Your task to perform on an android device: Go to calendar. Show me events next week Image 0: 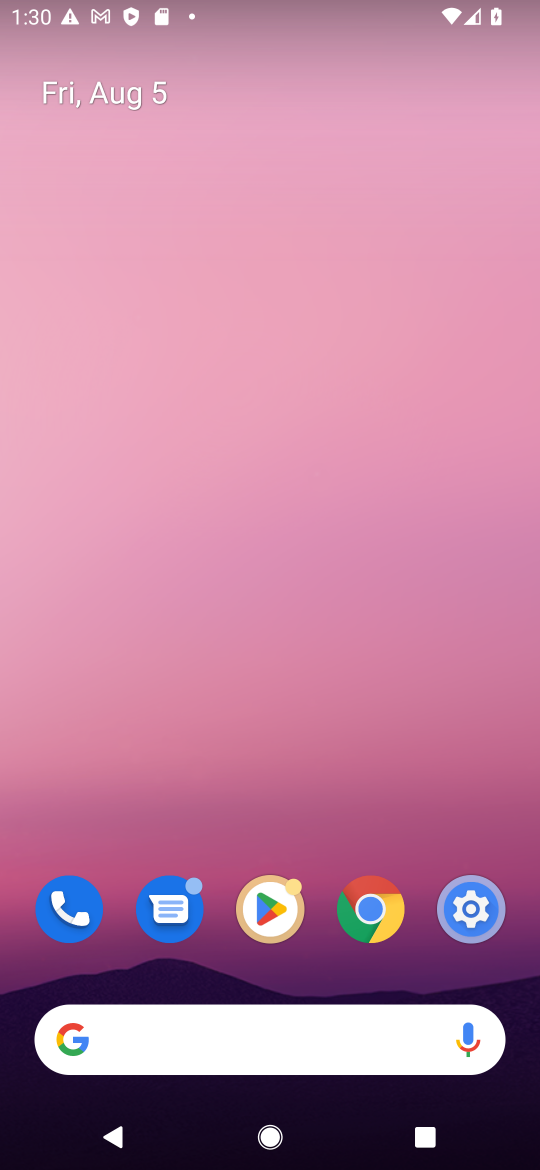
Step 0: drag from (303, 787) to (230, 66)
Your task to perform on an android device: Go to calendar. Show me events next week Image 1: 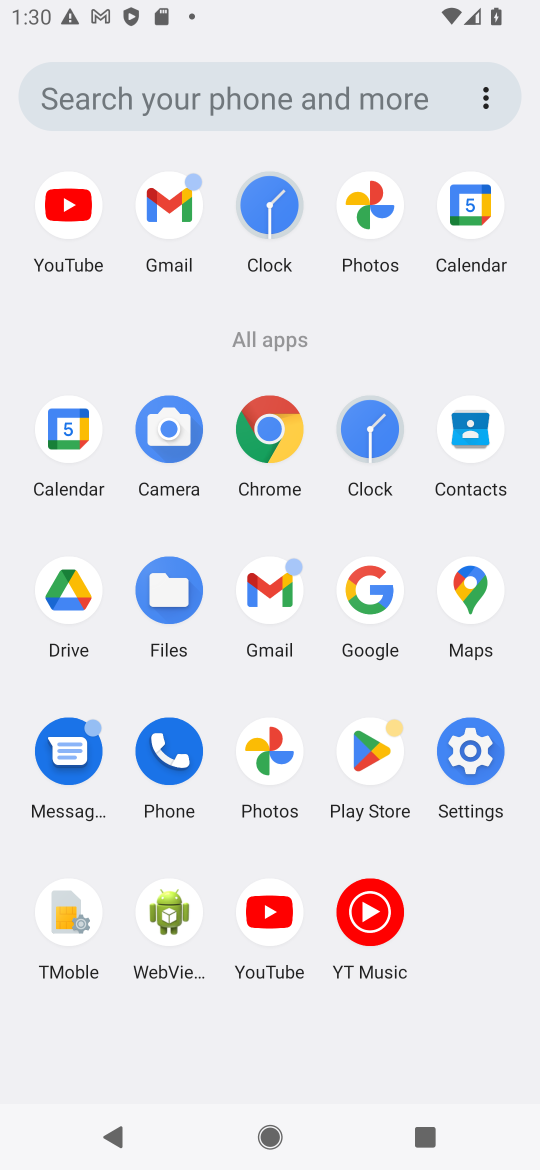
Step 1: click (478, 213)
Your task to perform on an android device: Go to calendar. Show me events next week Image 2: 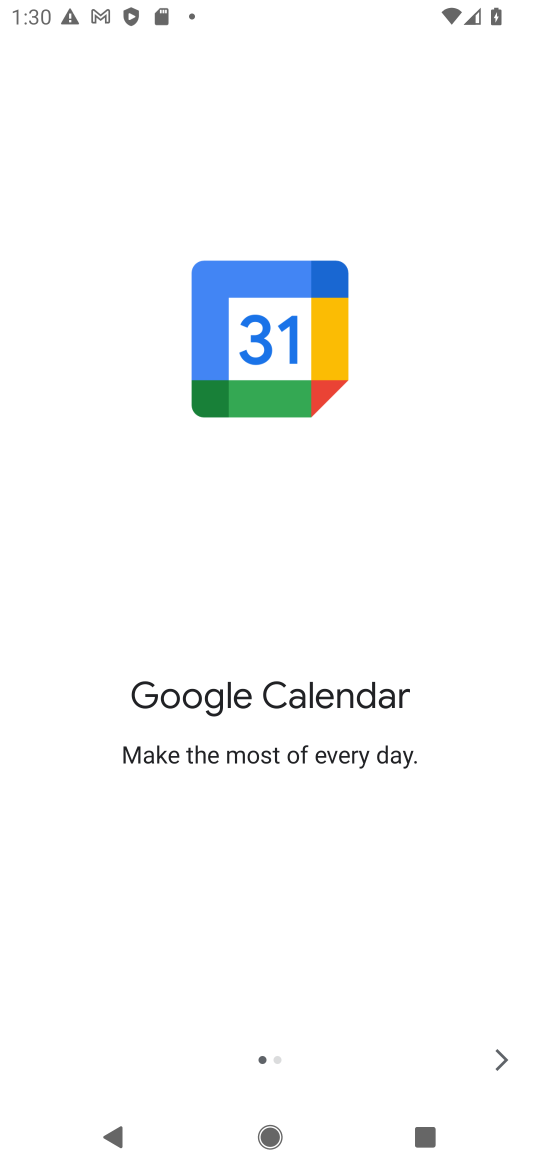
Step 2: click (501, 1061)
Your task to perform on an android device: Go to calendar. Show me events next week Image 3: 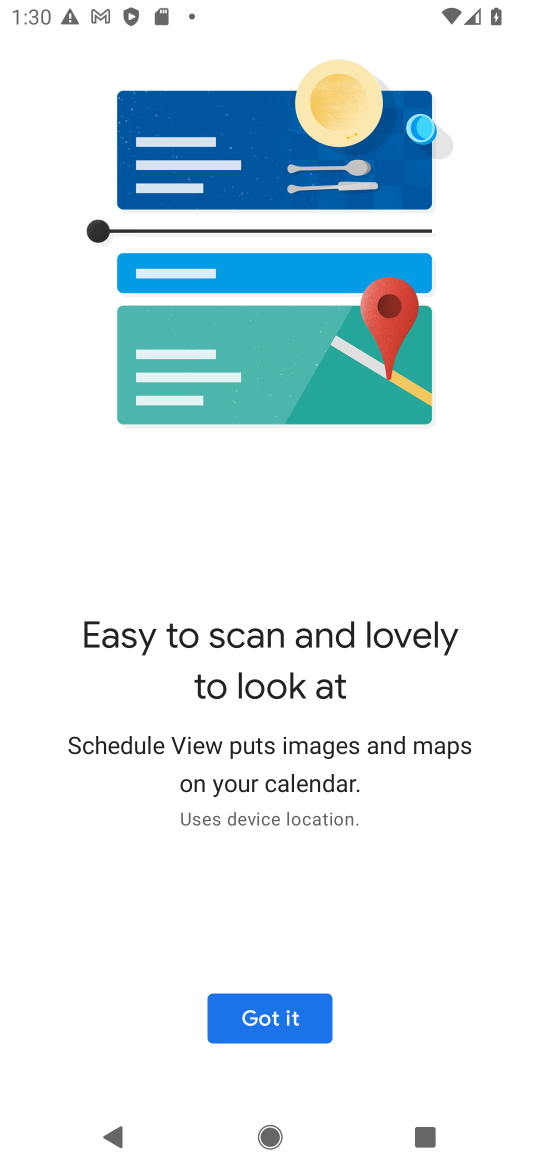
Step 3: click (501, 1061)
Your task to perform on an android device: Go to calendar. Show me events next week Image 4: 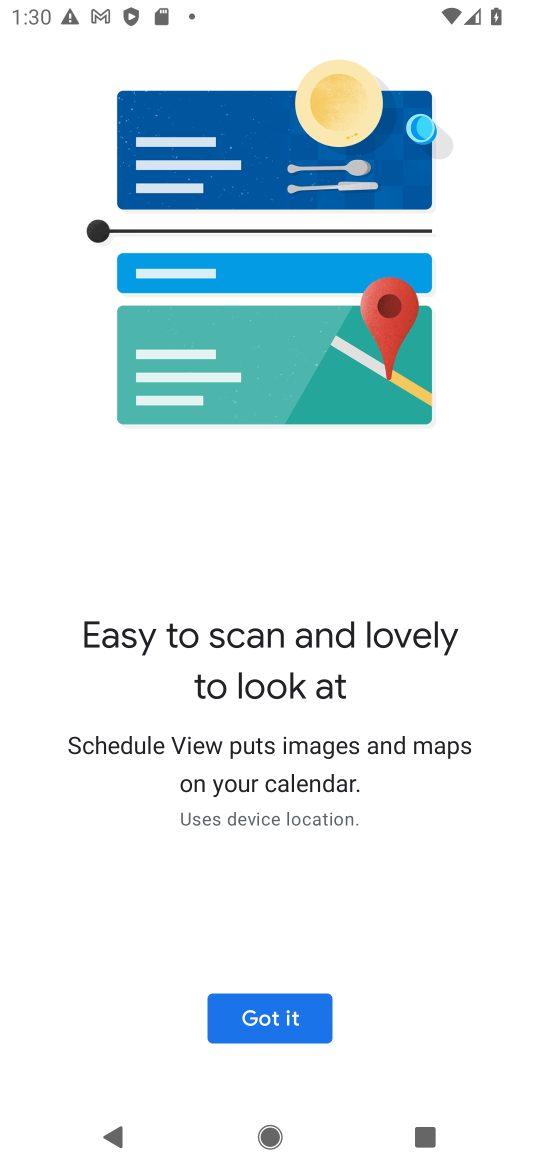
Step 4: click (265, 1021)
Your task to perform on an android device: Go to calendar. Show me events next week Image 5: 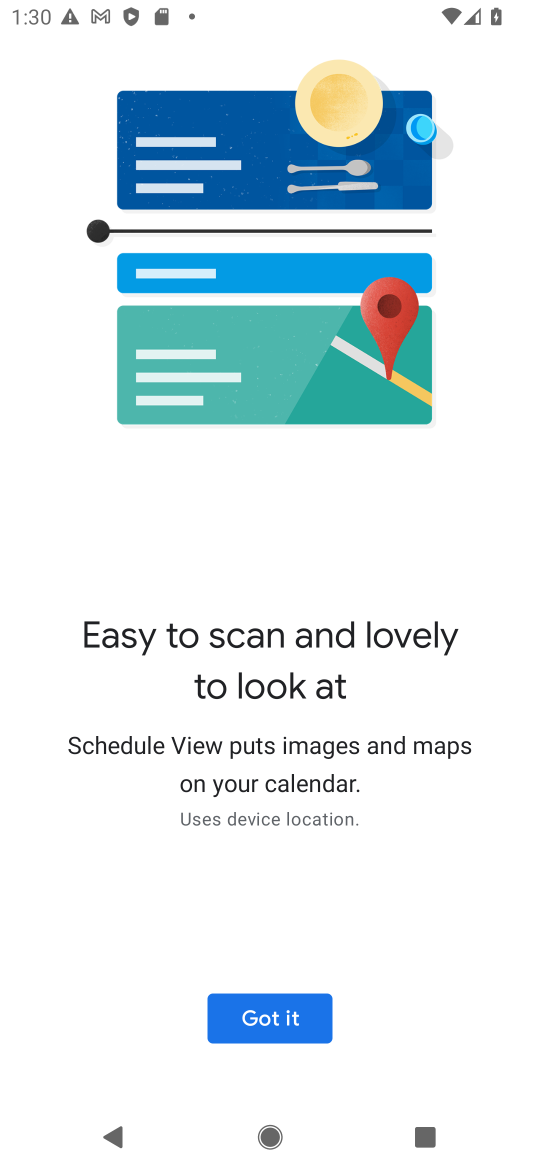
Step 5: click (265, 1021)
Your task to perform on an android device: Go to calendar. Show me events next week Image 6: 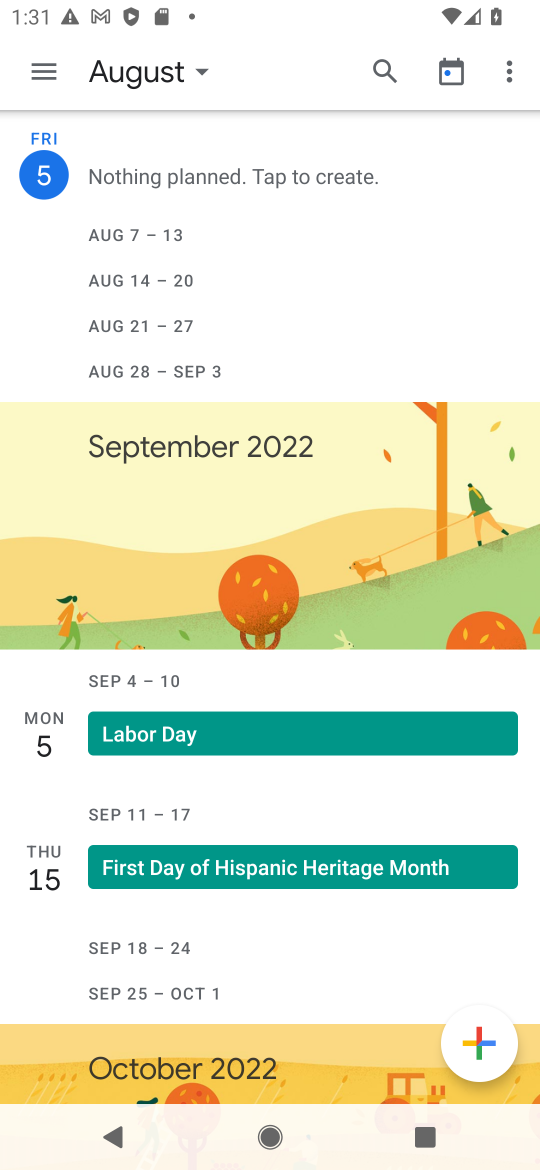
Step 6: click (49, 68)
Your task to perform on an android device: Go to calendar. Show me events next week Image 7: 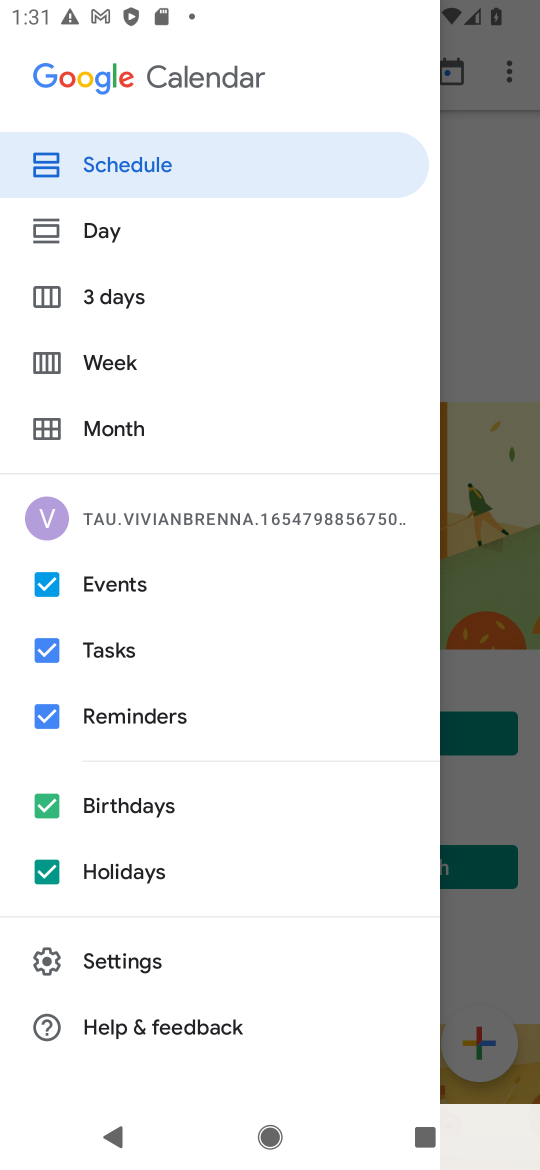
Step 7: click (94, 356)
Your task to perform on an android device: Go to calendar. Show me events next week Image 8: 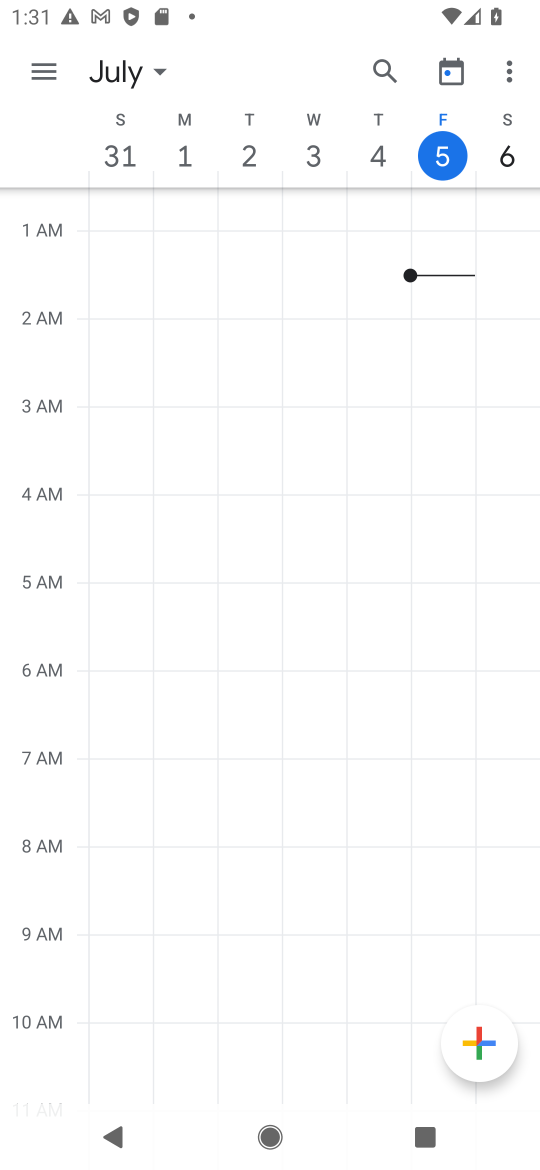
Step 8: click (154, 68)
Your task to perform on an android device: Go to calendar. Show me events next week Image 9: 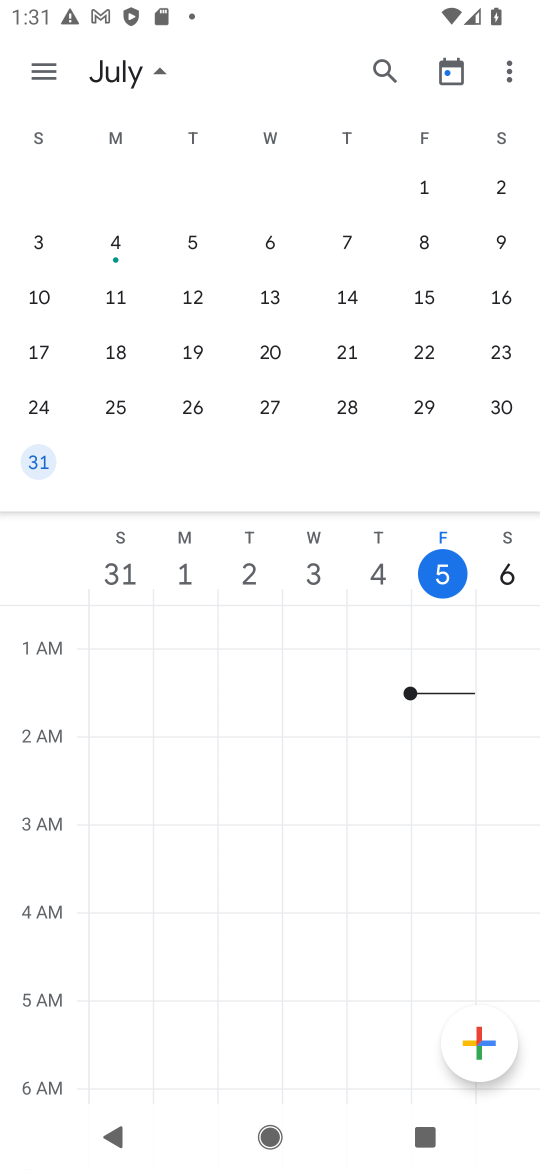
Step 9: drag from (489, 381) to (41, 222)
Your task to perform on an android device: Go to calendar. Show me events next week Image 10: 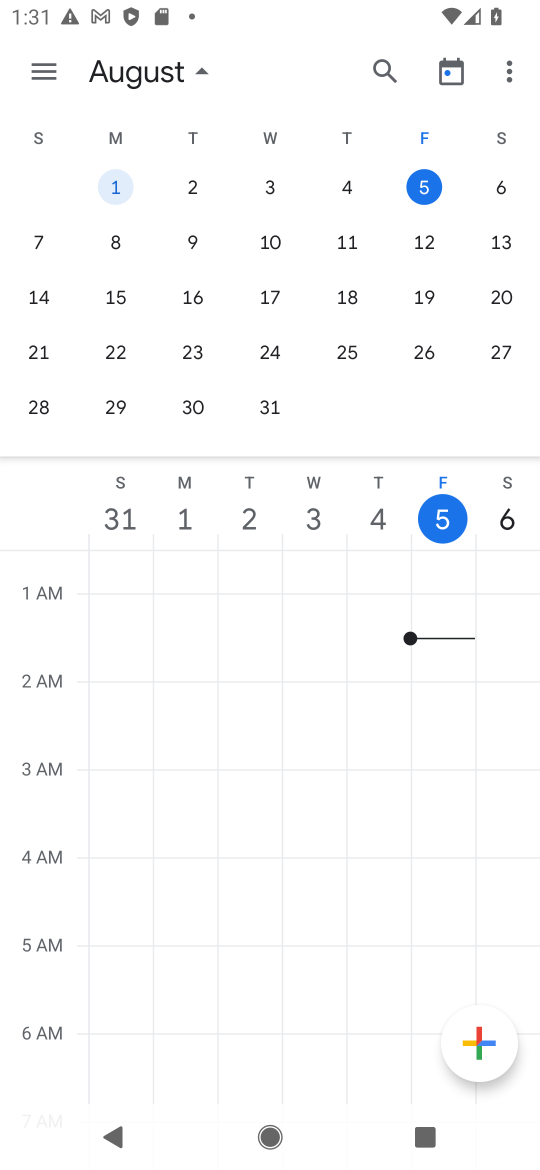
Step 10: click (285, 239)
Your task to perform on an android device: Go to calendar. Show me events next week Image 11: 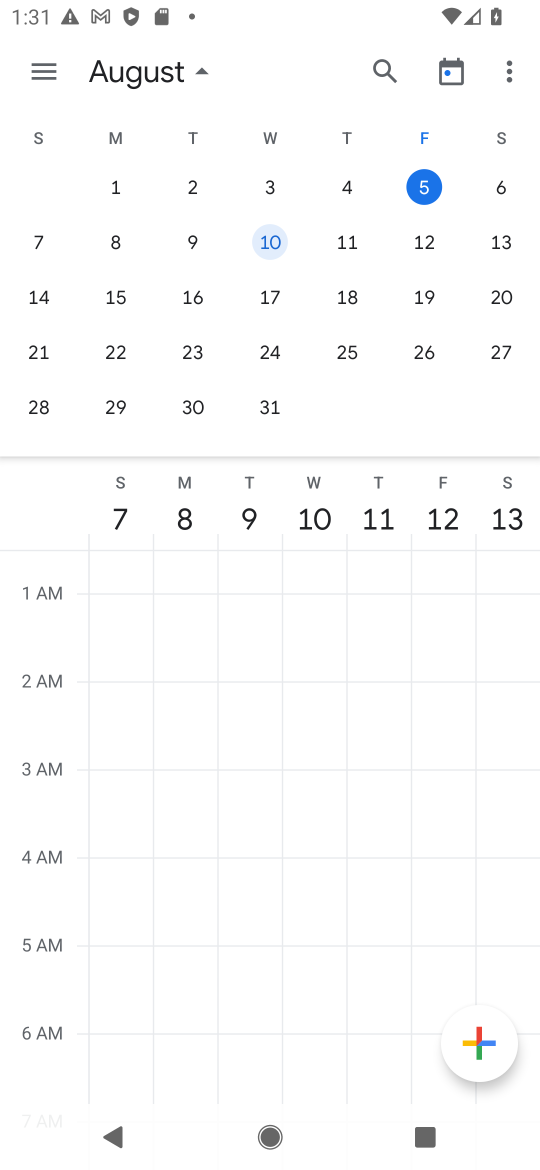
Step 11: task complete